Your task to perform on an android device: stop showing notifications on the lock screen Image 0: 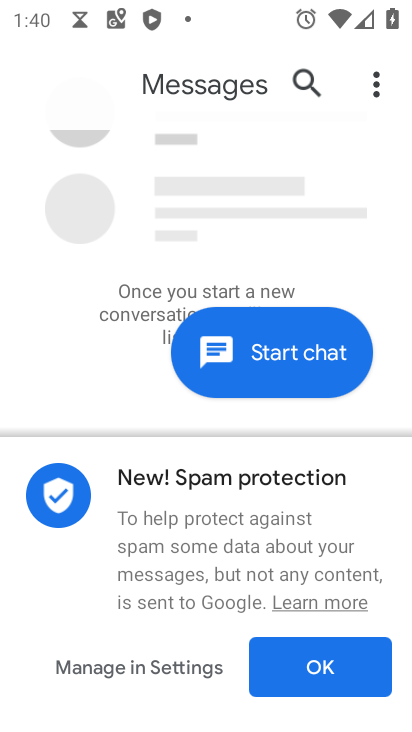
Step 0: press home button
Your task to perform on an android device: stop showing notifications on the lock screen Image 1: 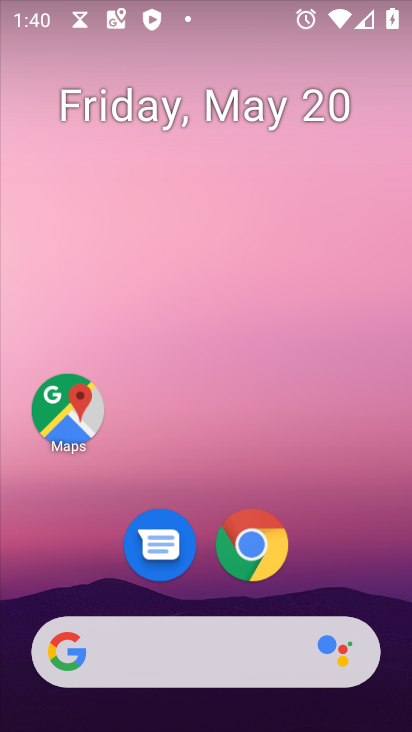
Step 1: drag from (325, 589) to (296, 298)
Your task to perform on an android device: stop showing notifications on the lock screen Image 2: 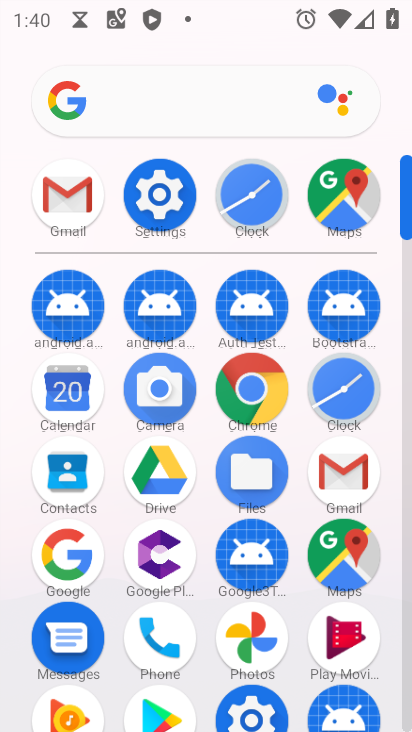
Step 2: click (147, 176)
Your task to perform on an android device: stop showing notifications on the lock screen Image 3: 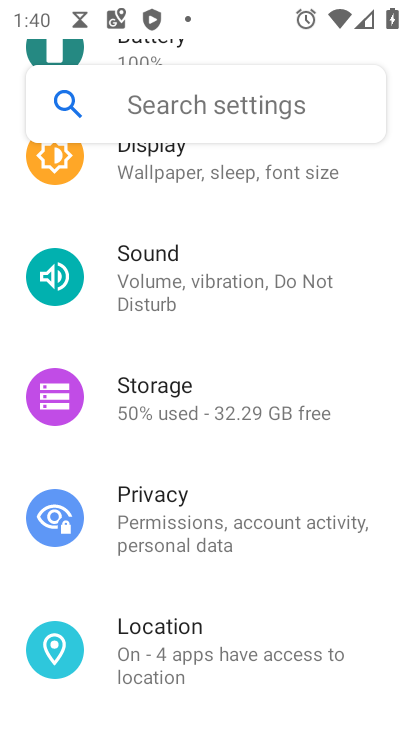
Step 3: drag from (277, 274) to (268, 420)
Your task to perform on an android device: stop showing notifications on the lock screen Image 4: 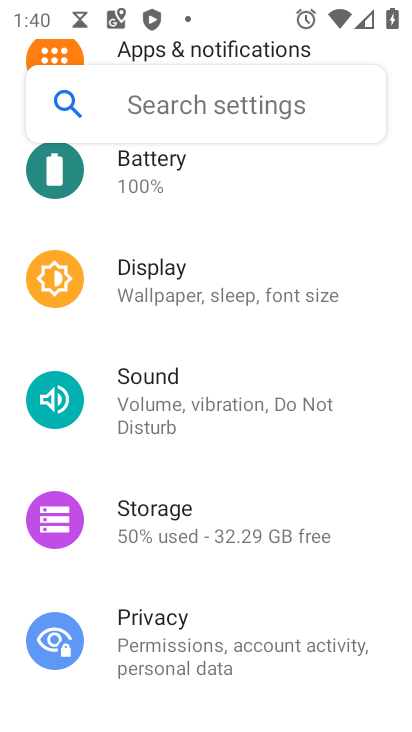
Step 4: drag from (270, 213) to (280, 477)
Your task to perform on an android device: stop showing notifications on the lock screen Image 5: 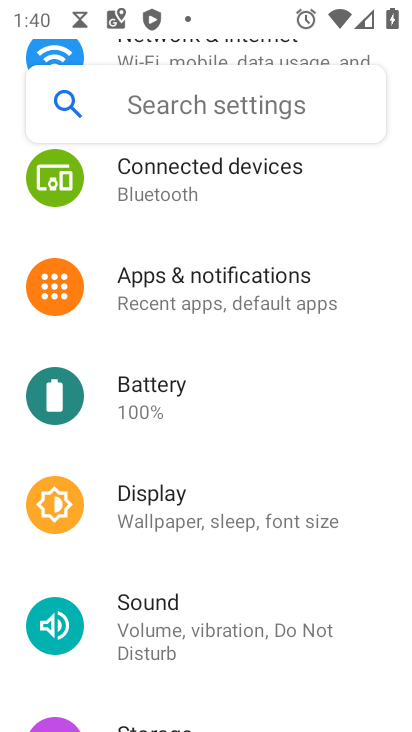
Step 5: click (261, 278)
Your task to perform on an android device: stop showing notifications on the lock screen Image 6: 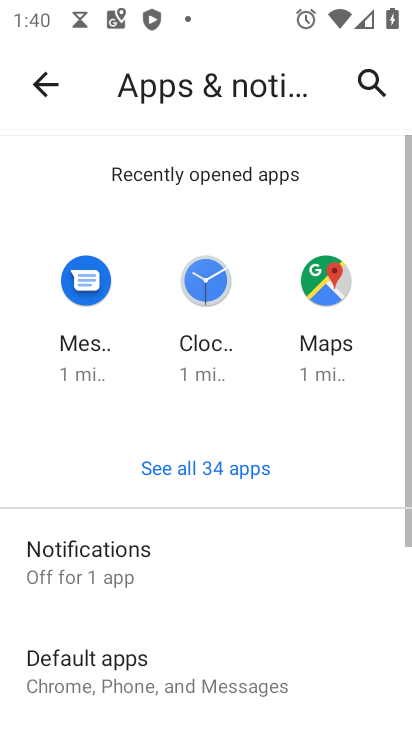
Step 6: click (119, 555)
Your task to perform on an android device: stop showing notifications on the lock screen Image 7: 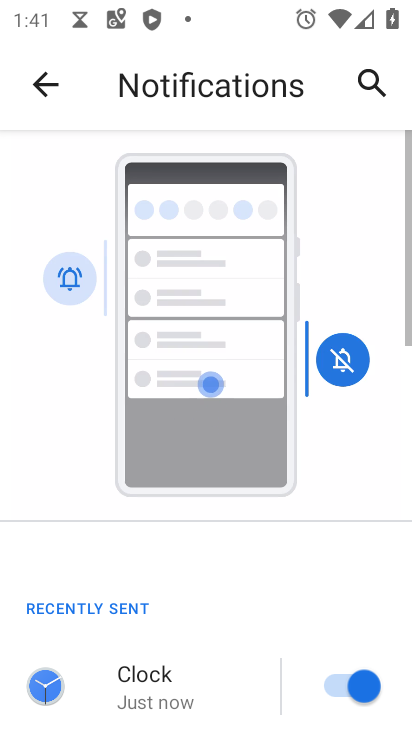
Step 7: drag from (257, 616) to (317, 66)
Your task to perform on an android device: stop showing notifications on the lock screen Image 8: 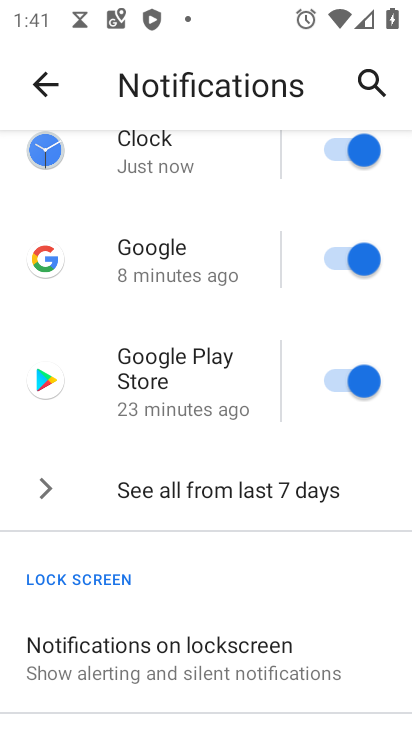
Step 8: click (239, 657)
Your task to perform on an android device: stop showing notifications on the lock screen Image 9: 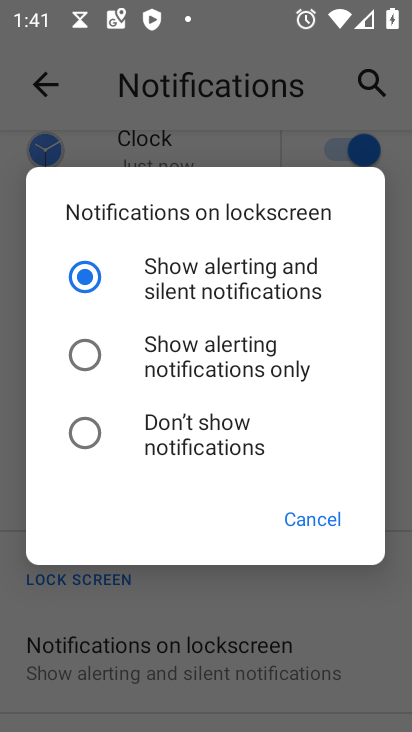
Step 9: click (85, 432)
Your task to perform on an android device: stop showing notifications on the lock screen Image 10: 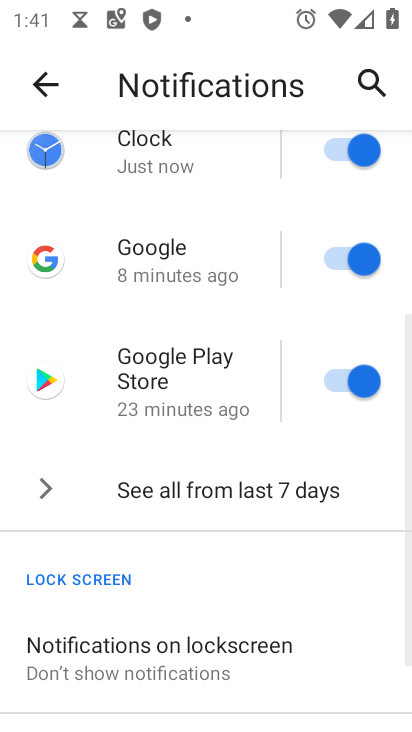
Step 10: task complete